Your task to perform on an android device: Toggle the flashlight Image 0: 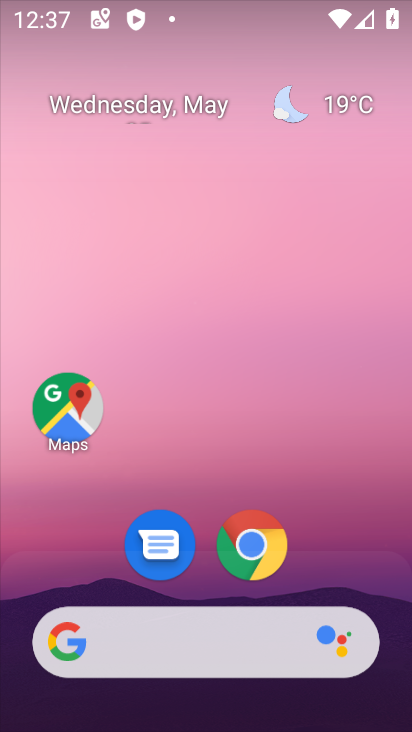
Step 0: drag from (222, 597) to (227, 207)
Your task to perform on an android device: Toggle the flashlight Image 1: 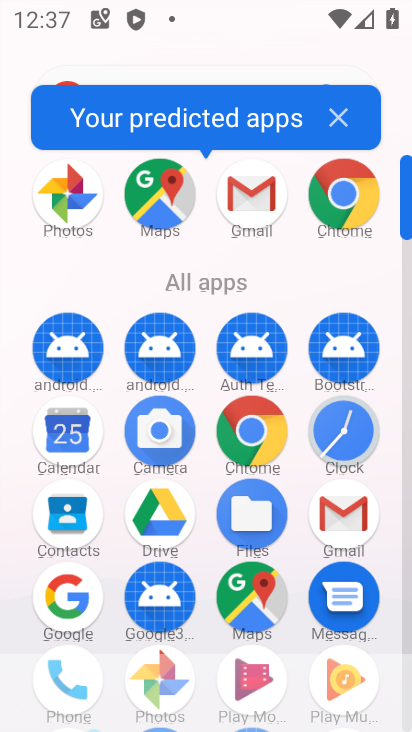
Step 1: drag from (208, 554) to (226, 132)
Your task to perform on an android device: Toggle the flashlight Image 2: 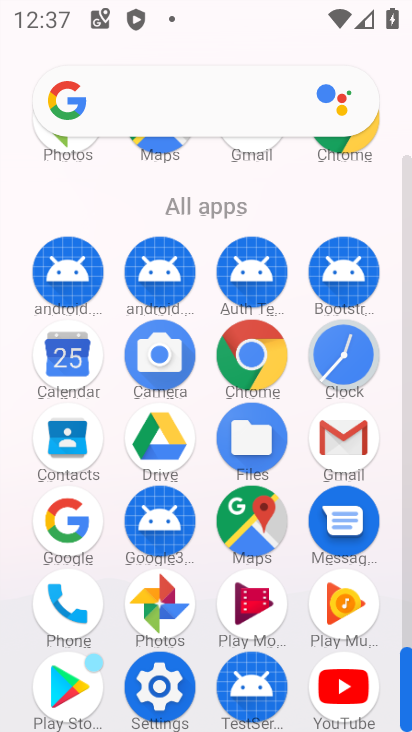
Step 2: click (152, 685)
Your task to perform on an android device: Toggle the flashlight Image 3: 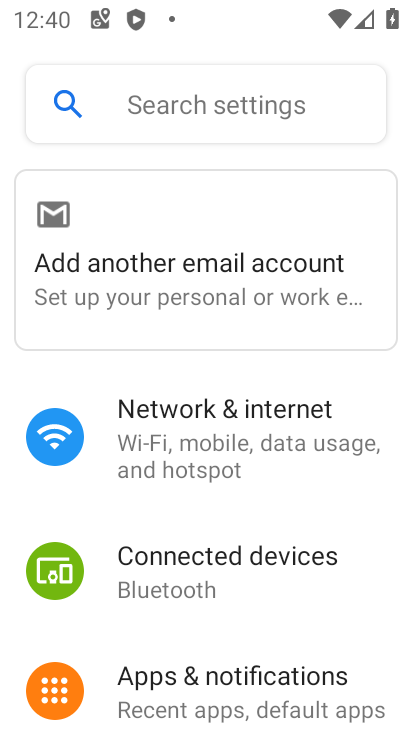
Step 3: task complete